Your task to perform on an android device: toggle airplane mode Image 0: 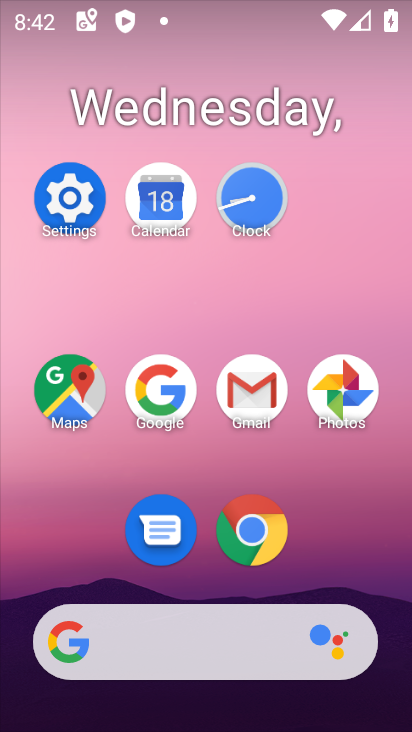
Step 0: click (81, 202)
Your task to perform on an android device: toggle airplane mode Image 1: 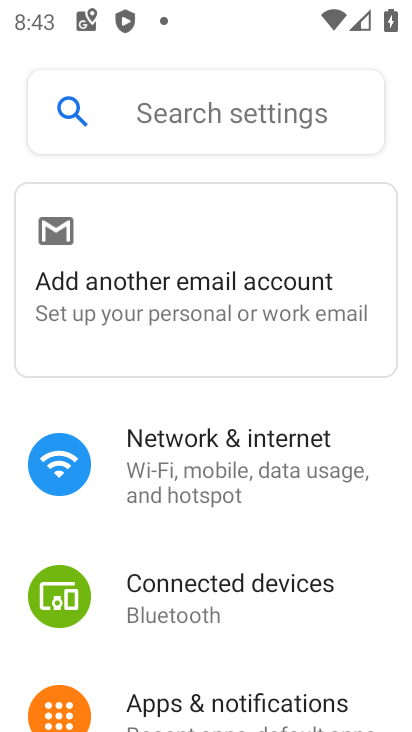
Step 1: click (268, 489)
Your task to perform on an android device: toggle airplane mode Image 2: 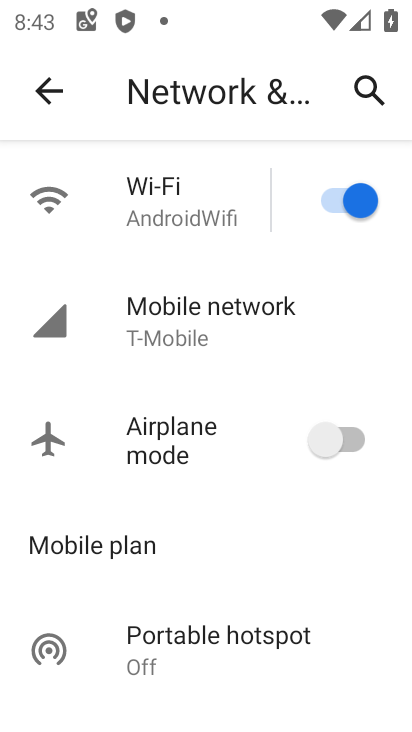
Step 2: click (345, 429)
Your task to perform on an android device: toggle airplane mode Image 3: 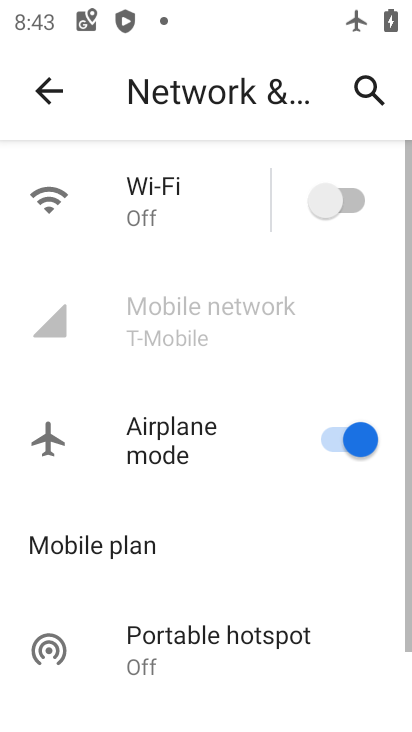
Step 3: task complete